Your task to perform on an android device: Open Yahoo.com Image 0: 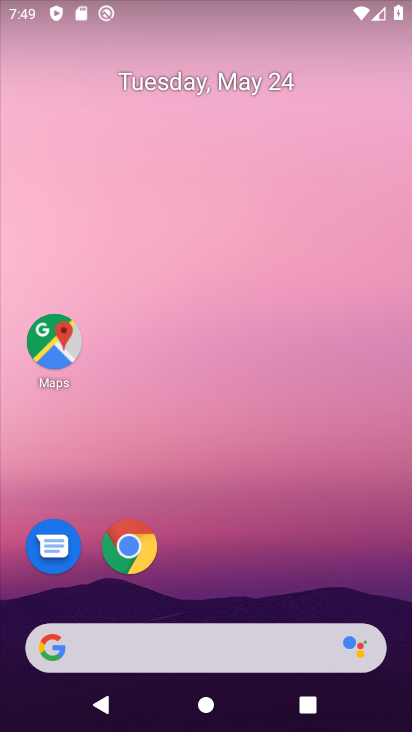
Step 0: click (294, 657)
Your task to perform on an android device: Open Yahoo.com Image 1: 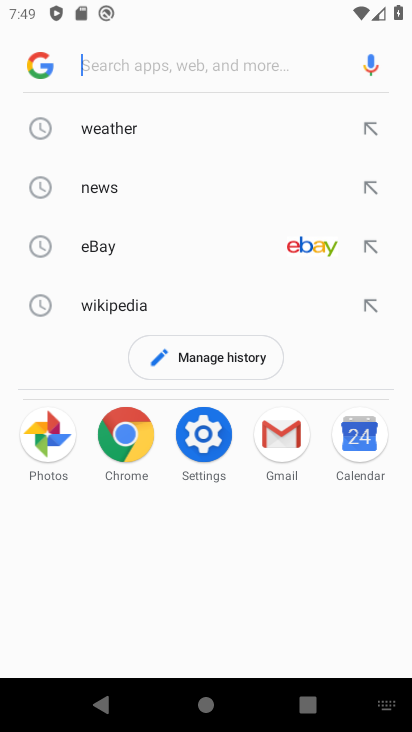
Step 1: type "yahoo.com"
Your task to perform on an android device: Open Yahoo.com Image 2: 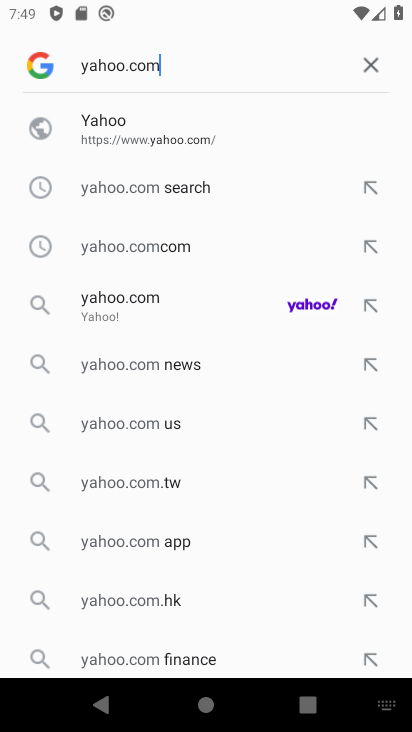
Step 2: click (119, 299)
Your task to perform on an android device: Open Yahoo.com Image 3: 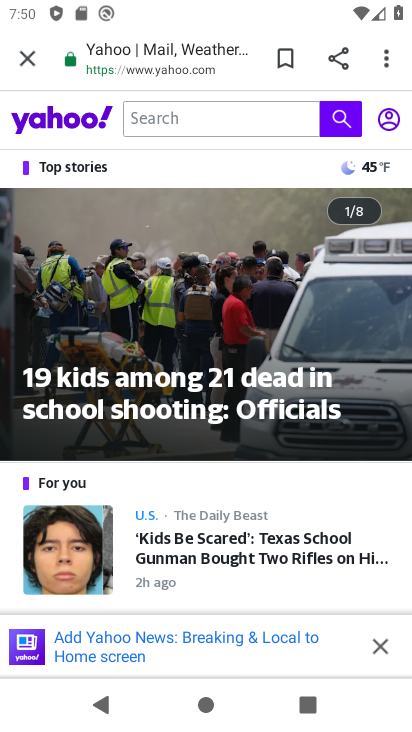
Step 3: drag from (210, 459) to (238, 273)
Your task to perform on an android device: Open Yahoo.com Image 4: 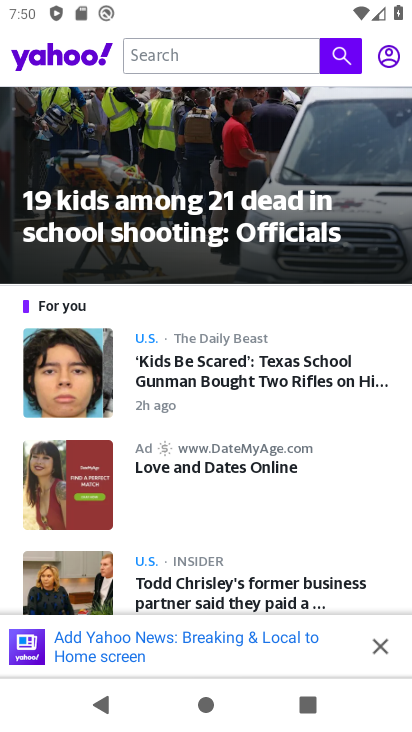
Step 4: click (243, 237)
Your task to perform on an android device: Open Yahoo.com Image 5: 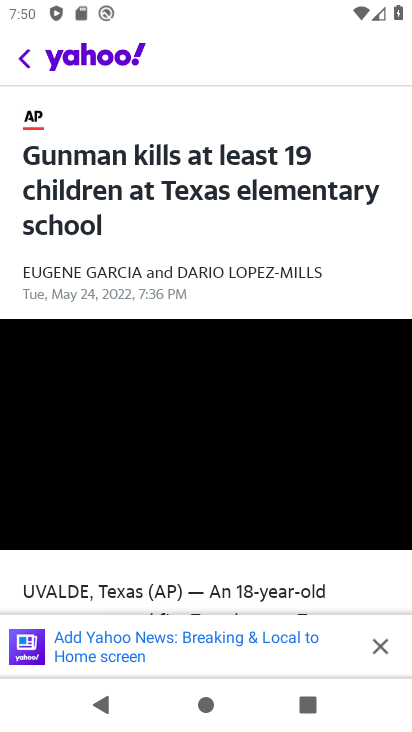
Step 5: task complete